Your task to perform on an android device: Search for "logitech g pro" on costco, select the first entry, add it to the cart, then select checkout. Image 0: 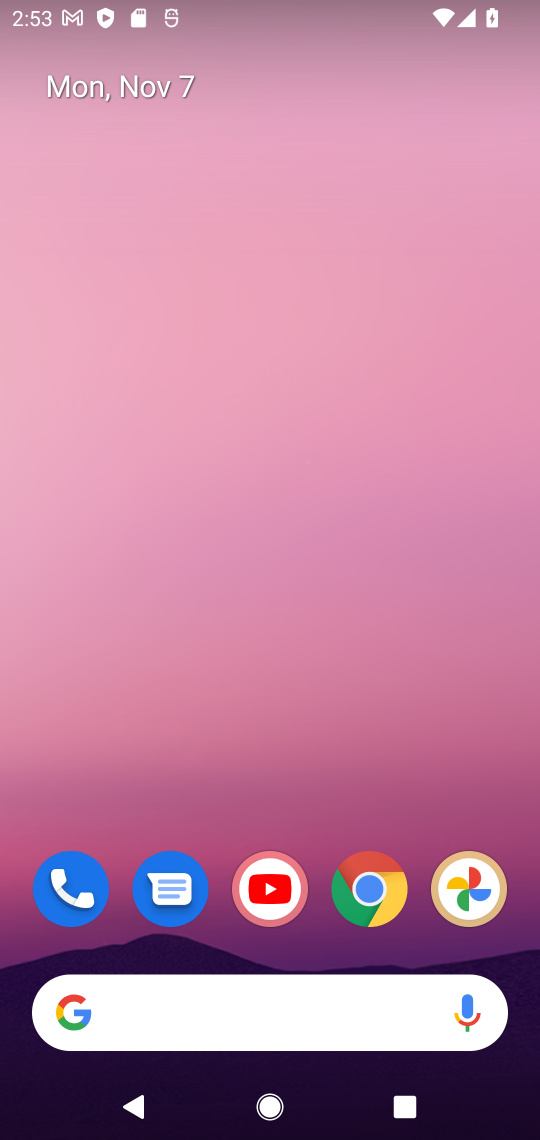
Step 0: click (379, 913)
Your task to perform on an android device: Search for "logitech g pro" on costco, select the first entry, add it to the cart, then select checkout. Image 1: 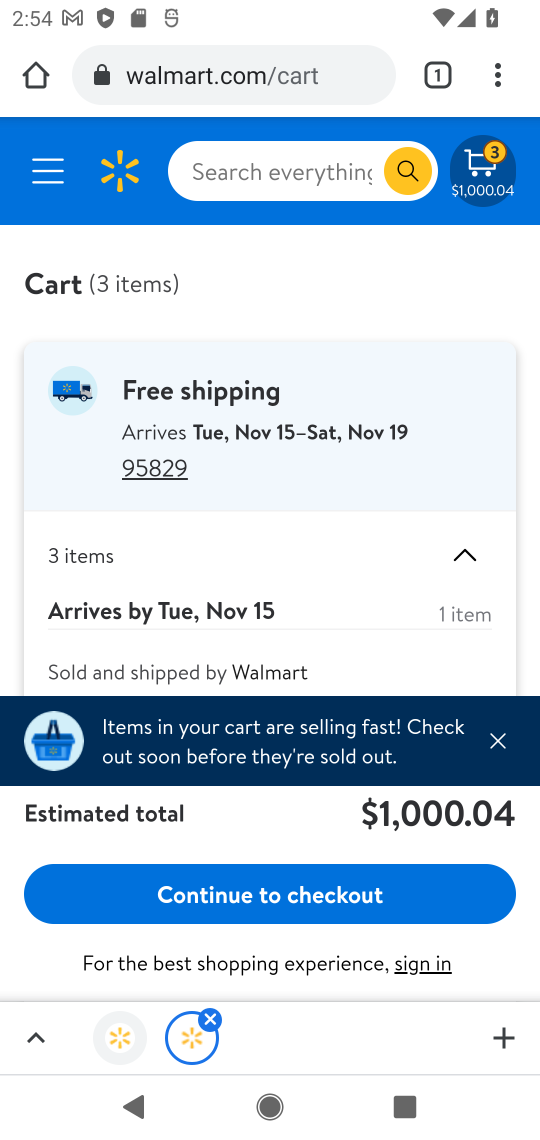
Step 1: click (252, 72)
Your task to perform on an android device: Search for "logitech g pro" on costco, select the first entry, add it to the cart, then select checkout. Image 2: 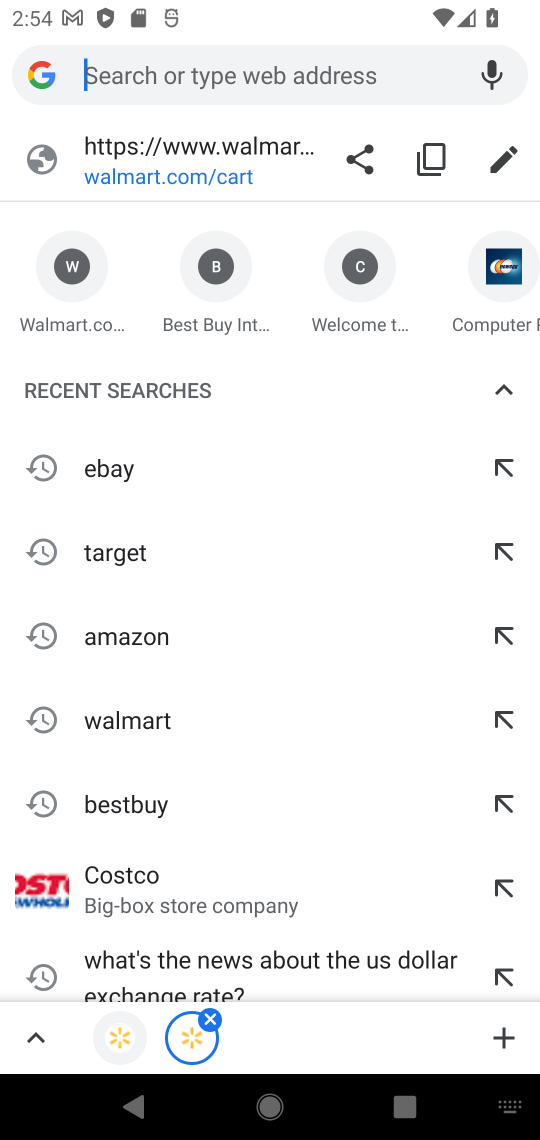
Step 2: type "costco"
Your task to perform on an android device: Search for "logitech g pro" on costco, select the first entry, add it to the cart, then select checkout. Image 3: 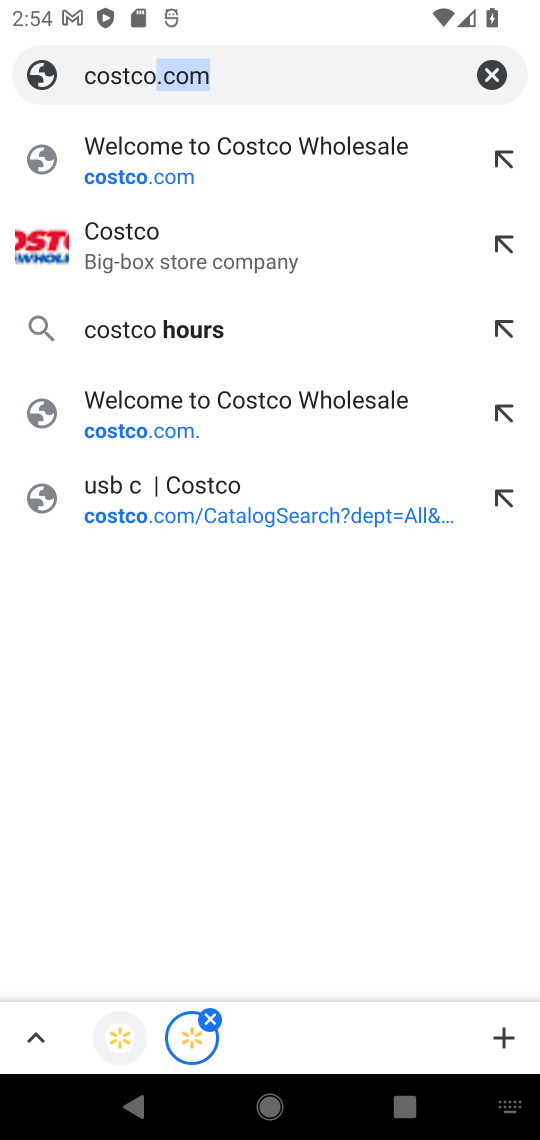
Step 3: click (282, 167)
Your task to perform on an android device: Search for "logitech g pro" on costco, select the first entry, add it to the cart, then select checkout. Image 4: 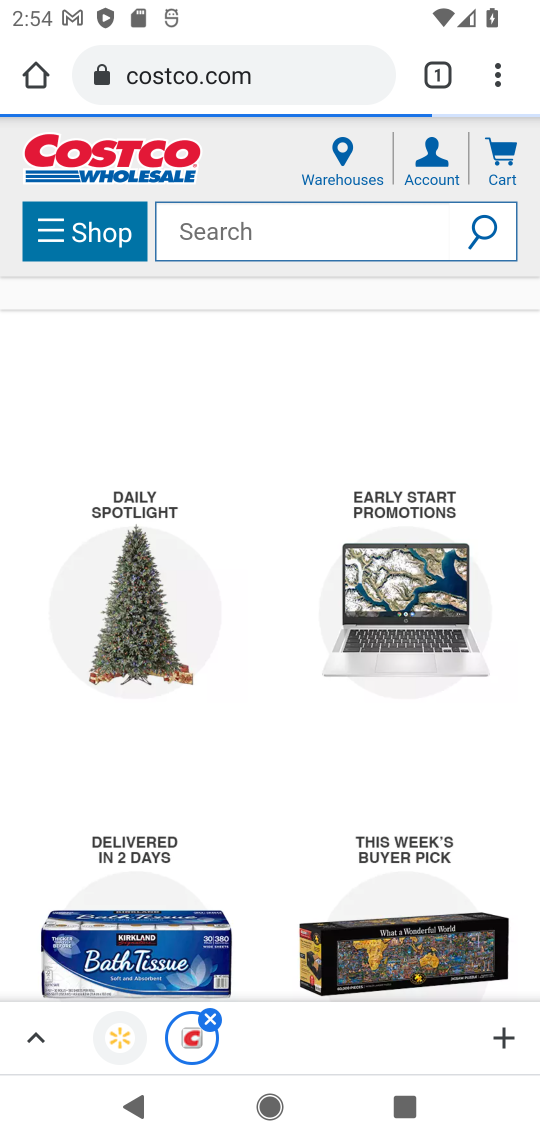
Step 4: click (300, 255)
Your task to perform on an android device: Search for "logitech g pro" on costco, select the first entry, add it to the cart, then select checkout. Image 5: 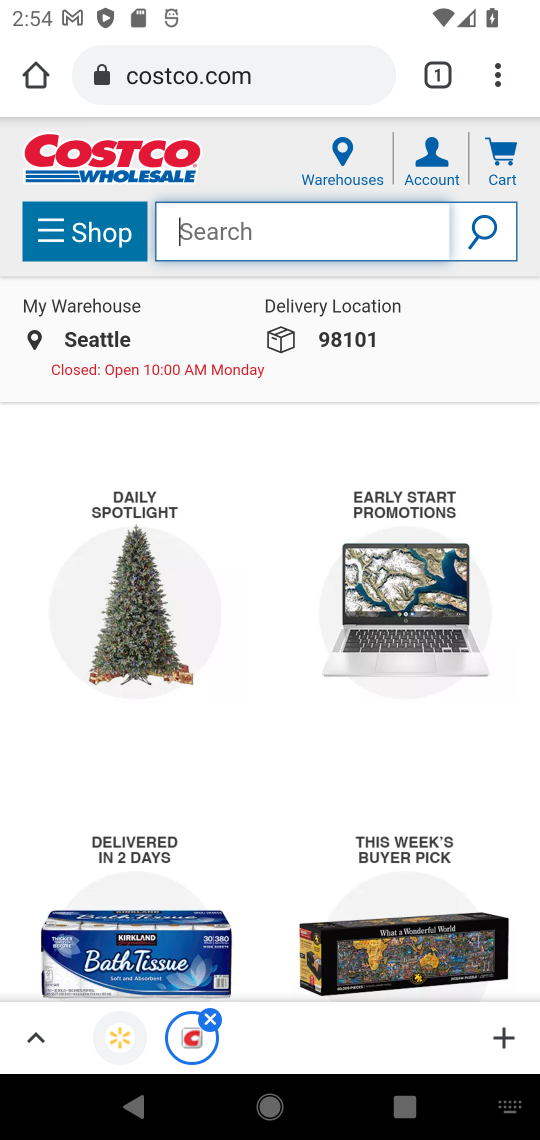
Step 5: type "logitech g pro"
Your task to perform on an android device: Search for "logitech g pro" on costco, select the first entry, add it to the cart, then select checkout. Image 6: 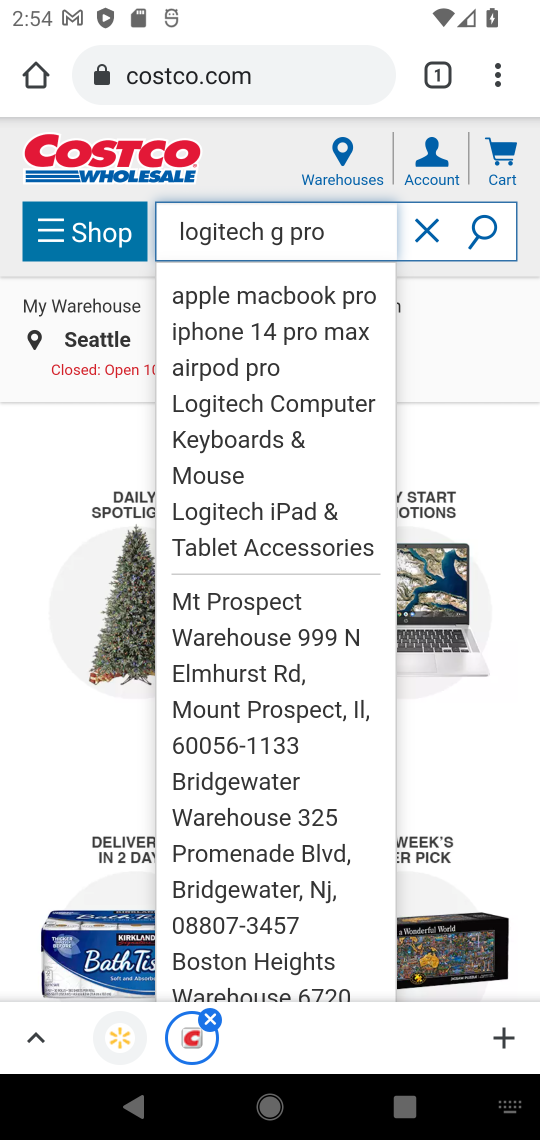
Step 6: press enter
Your task to perform on an android device: Search for "logitech g pro" on costco, select the first entry, add it to the cart, then select checkout. Image 7: 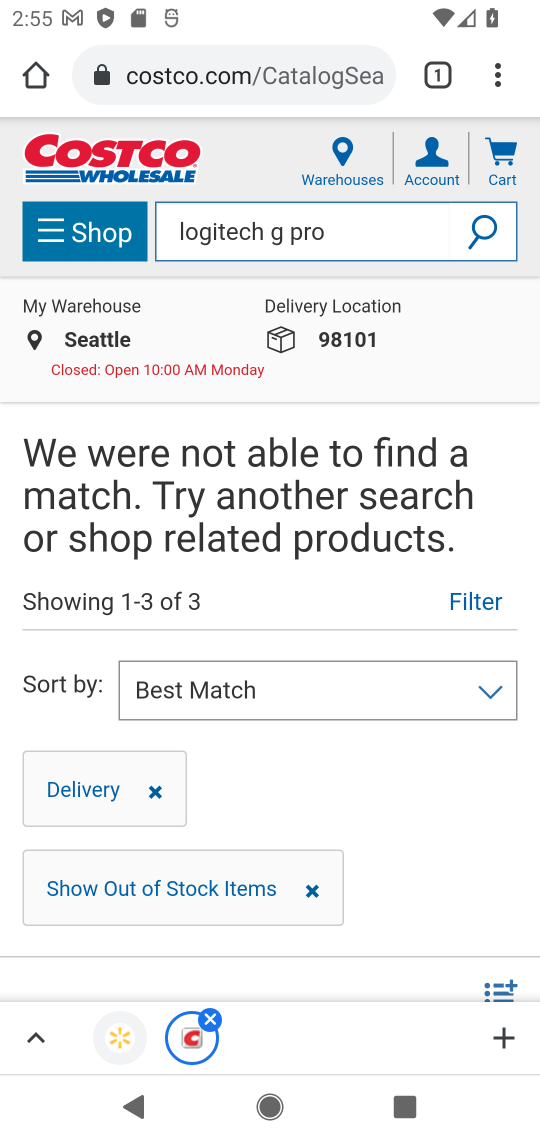
Step 7: drag from (485, 908) to (448, 305)
Your task to perform on an android device: Search for "logitech g pro" on costco, select the first entry, add it to the cart, then select checkout. Image 8: 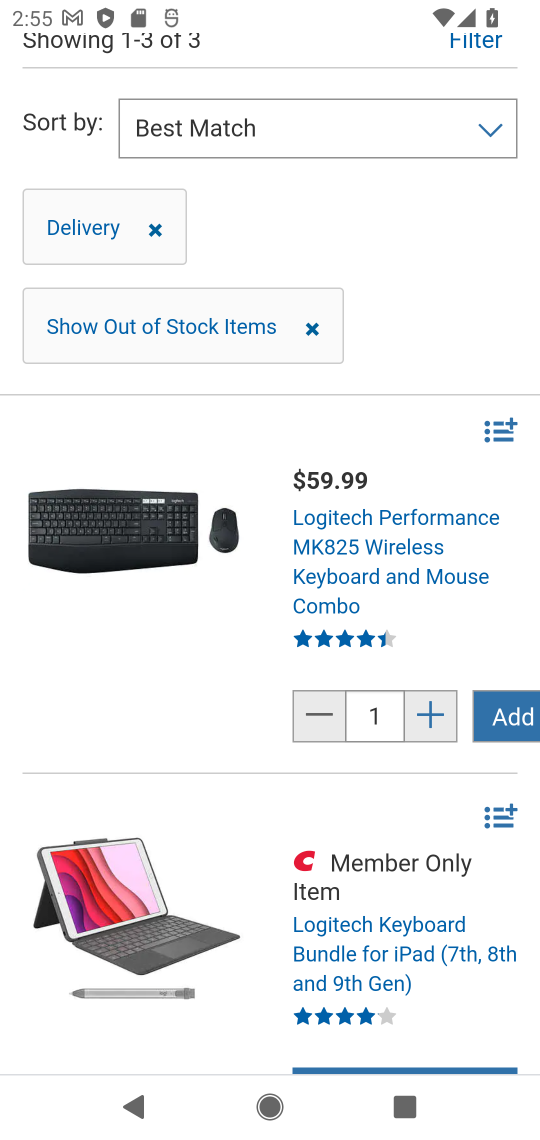
Step 8: click (493, 720)
Your task to perform on an android device: Search for "logitech g pro" on costco, select the first entry, add it to the cart, then select checkout. Image 9: 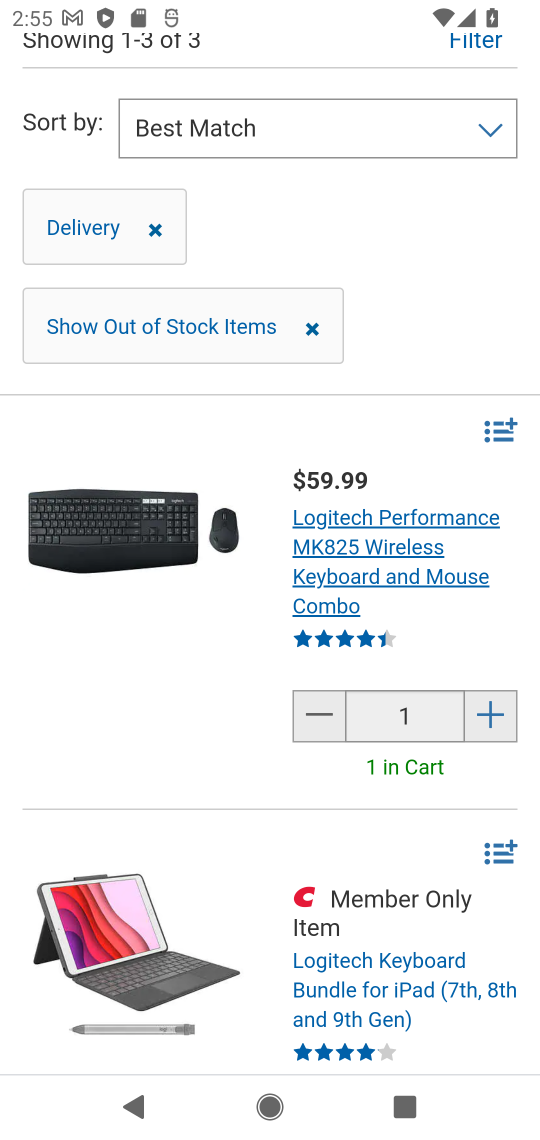
Step 9: drag from (452, 280) to (457, 834)
Your task to perform on an android device: Search for "logitech g pro" on costco, select the first entry, add it to the cart, then select checkout. Image 10: 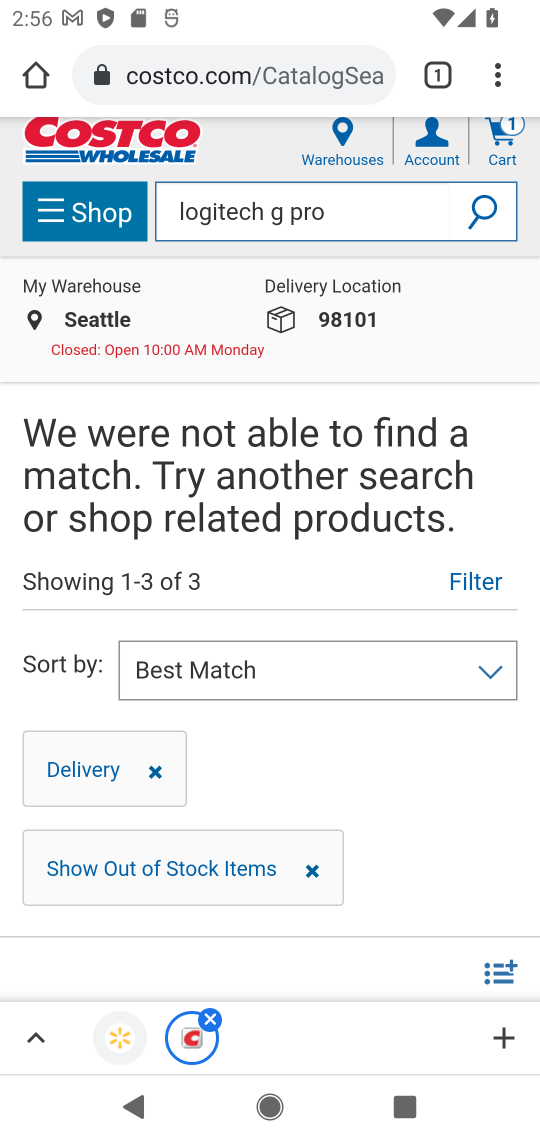
Step 10: click (505, 134)
Your task to perform on an android device: Search for "logitech g pro" on costco, select the first entry, add it to the cart, then select checkout. Image 11: 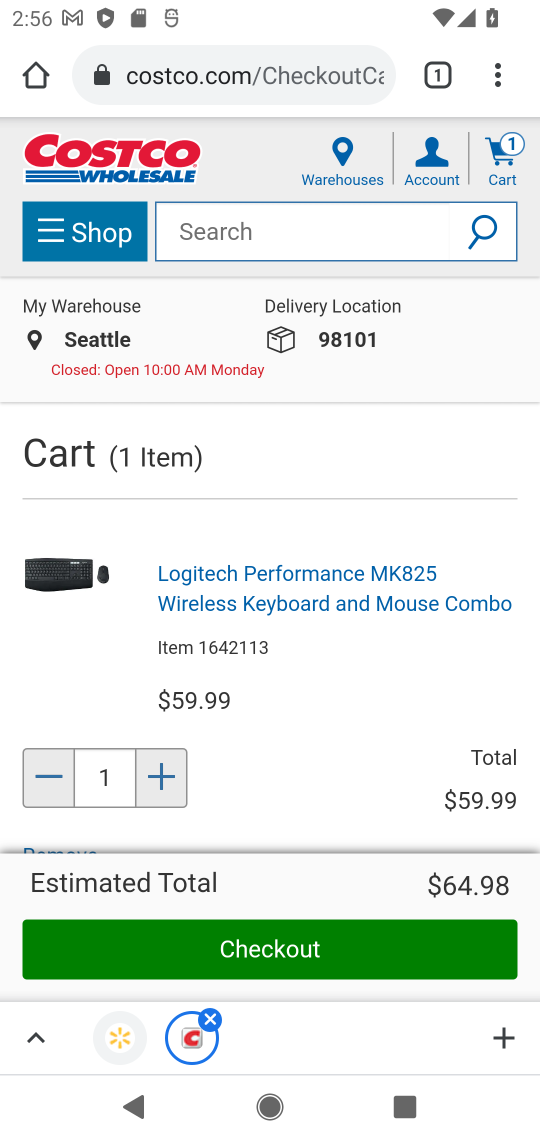
Step 11: click (347, 969)
Your task to perform on an android device: Search for "logitech g pro" on costco, select the first entry, add it to the cart, then select checkout. Image 12: 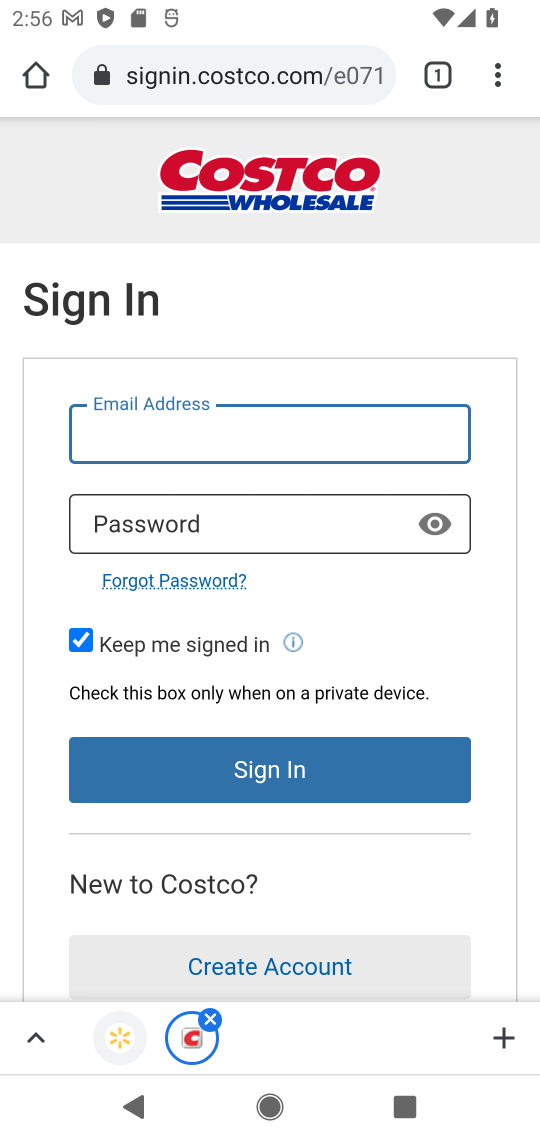
Step 12: task complete